Your task to perform on an android device: delete location history Image 0: 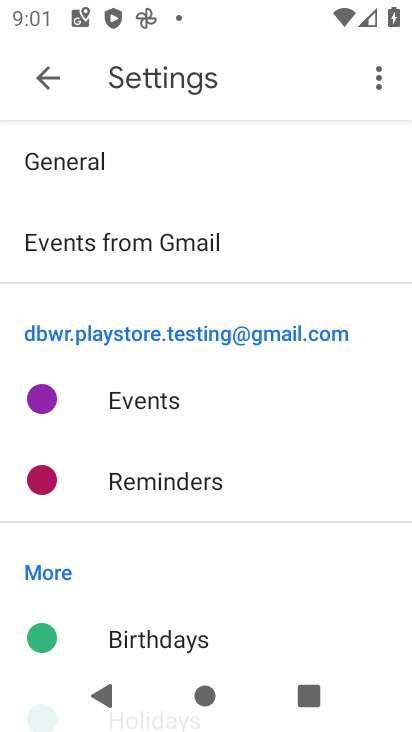
Step 0: drag from (184, 587) to (313, 61)
Your task to perform on an android device: delete location history Image 1: 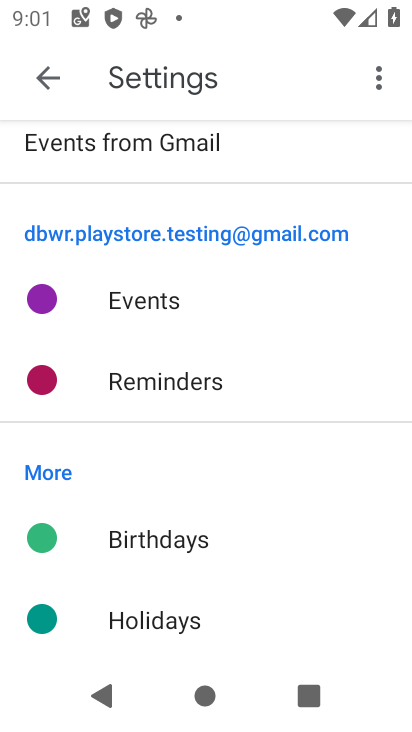
Step 1: press home button
Your task to perform on an android device: delete location history Image 2: 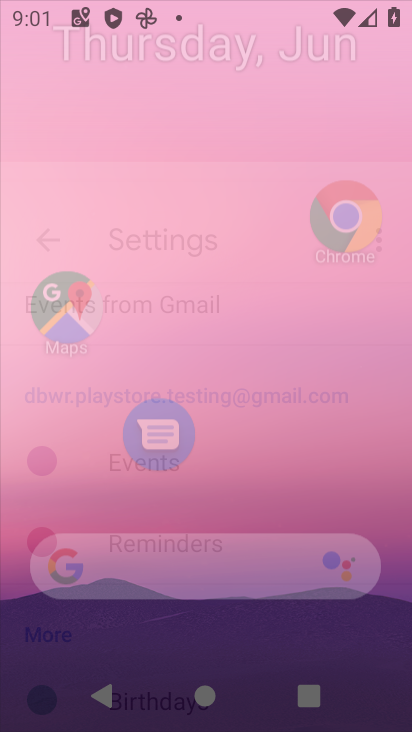
Step 2: drag from (124, 611) to (207, 249)
Your task to perform on an android device: delete location history Image 3: 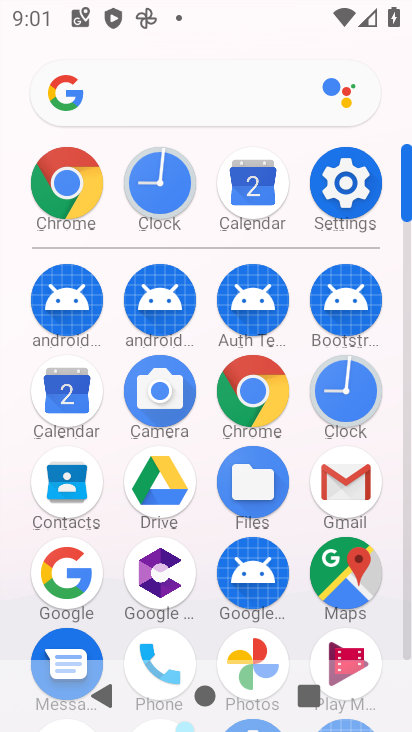
Step 3: click (336, 201)
Your task to perform on an android device: delete location history Image 4: 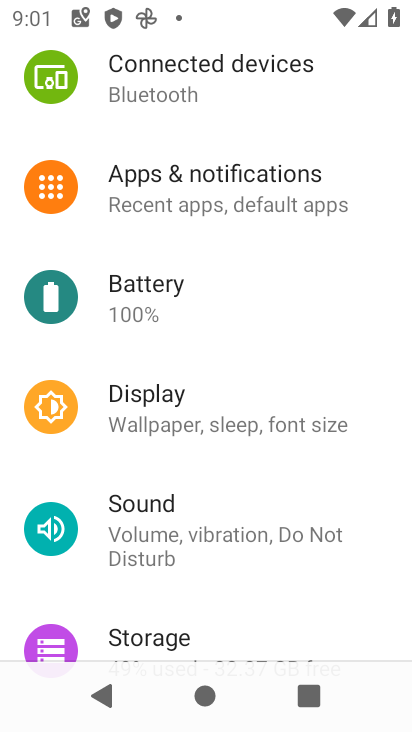
Step 4: drag from (218, 605) to (286, 290)
Your task to perform on an android device: delete location history Image 5: 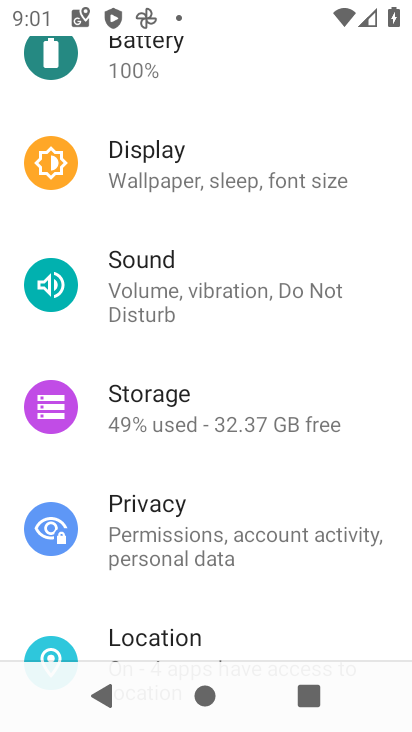
Step 5: click (151, 629)
Your task to perform on an android device: delete location history Image 6: 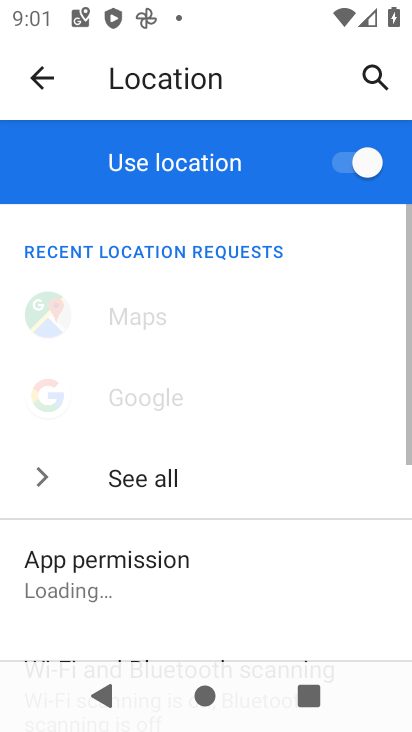
Step 6: drag from (199, 593) to (287, 111)
Your task to perform on an android device: delete location history Image 7: 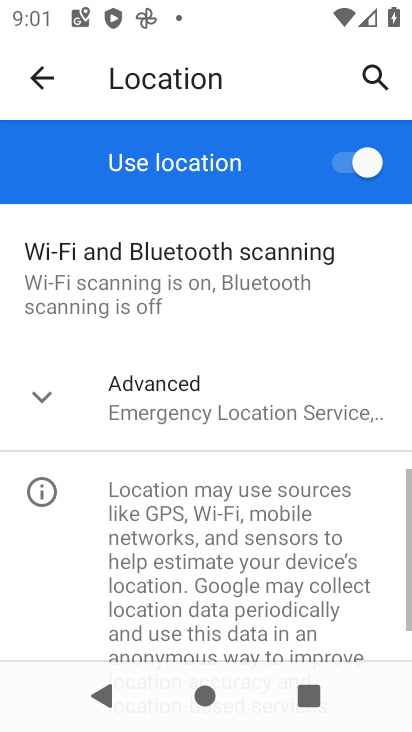
Step 7: click (135, 427)
Your task to perform on an android device: delete location history Image 8: 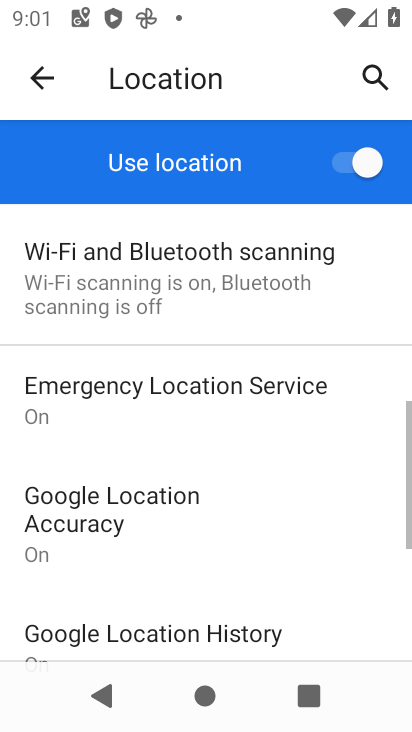
Step 8: drag from (208, 548) to (250, 283)
Your task to perform on an android device: delete location history Image 9: 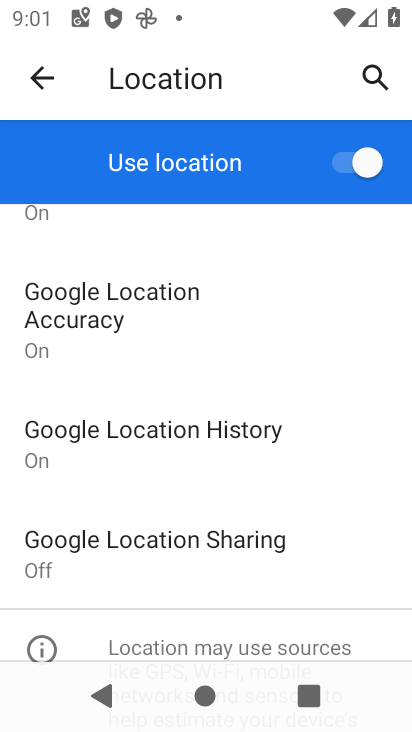
Step 9: click (230, 434)
Your task to perform on an android device: delete location history Image 10: 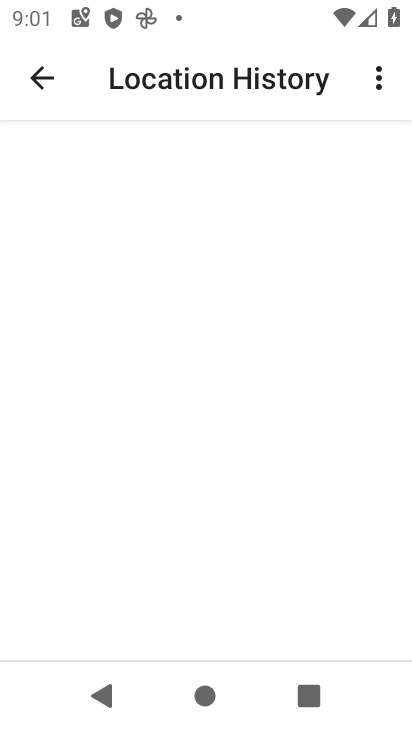
Step 10: drag from (195, 571) to (373, 230)
Your task to perform on an android device: delete location history Image 11: 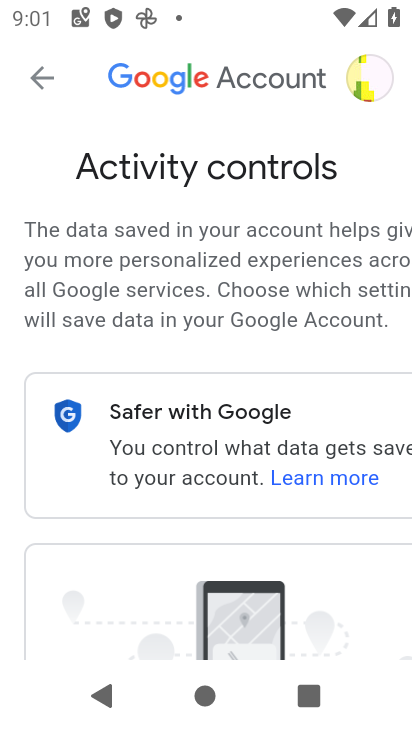
Step 11: drag from (237, 573) to (264, 150)
Your task to perform on an android device: delete location history Image 12: 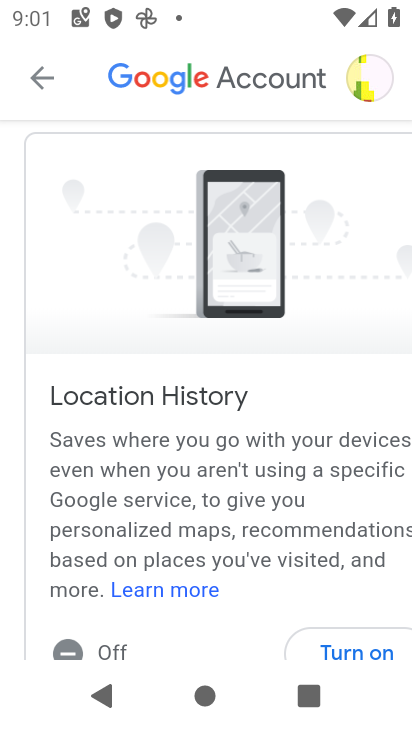
Step 12: drag from (189, 609) to (263, 261)
Your task to perform on an android device: delete location history Image 13: 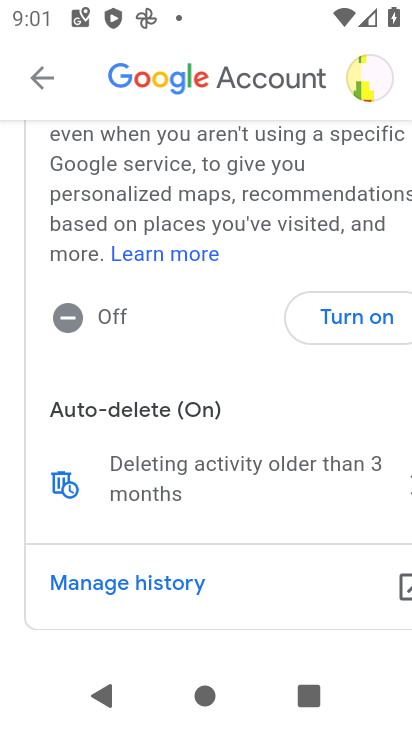
Step 13: click (59, 480)
Your task to perform on an android device: delete location history Image 14: 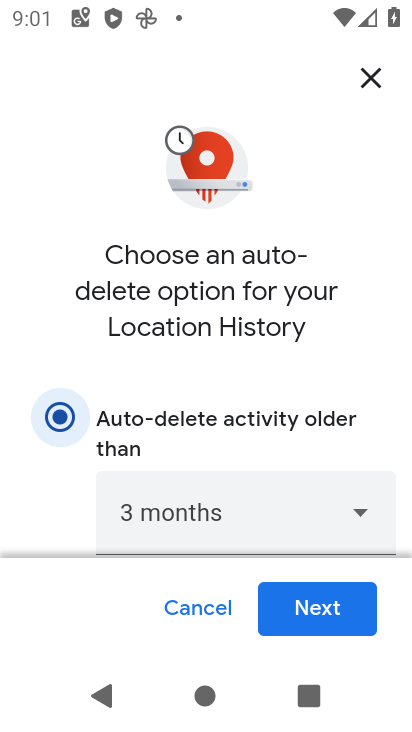
Step 14: drag from (161, 471) to (285, 65)
Your task to perform on an android device: delete location history Image 15: 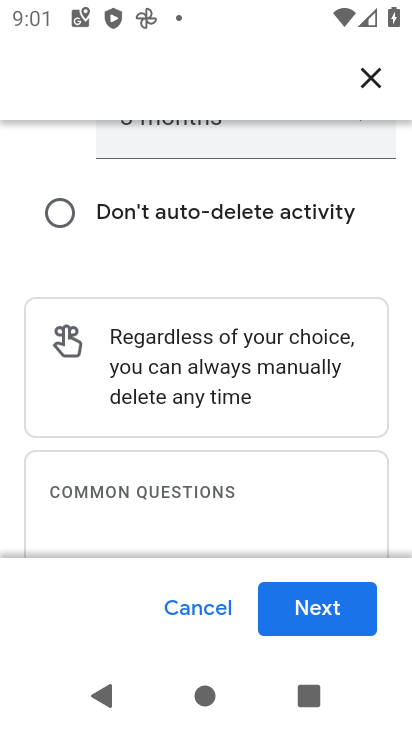
Step 15: drag from (251, 393) to (357, 109)
Your task to perform on an android device: delete location history Image 16: 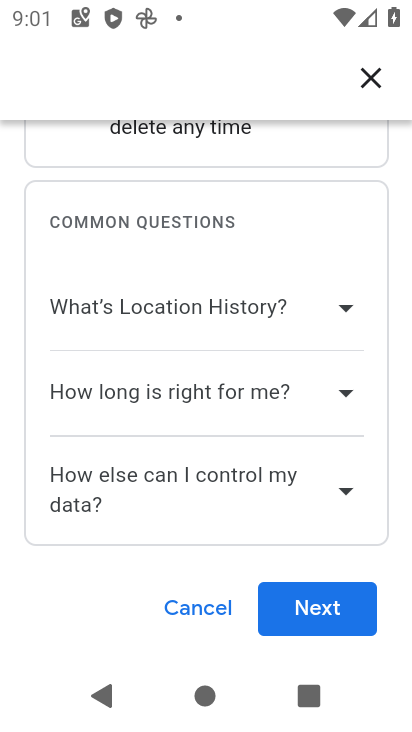
Step 16: drag from (161, 477) to (268, 130)
Your task to perform on an android device: delete location history Image 17: 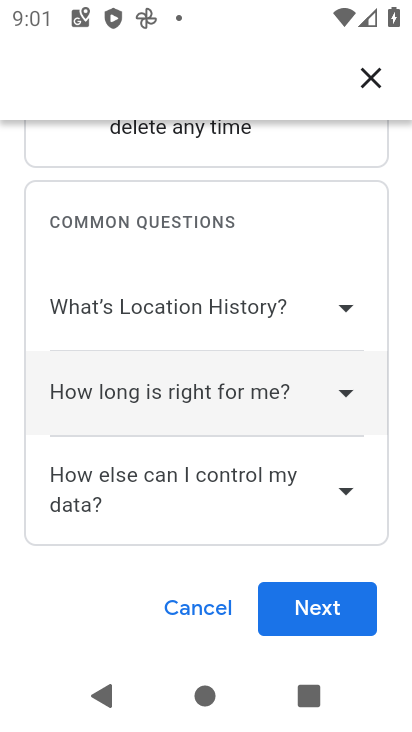
Step 17: drag from (222, 557) to (328, 236)
Your task to perform on an android device: delete location history Image 18: 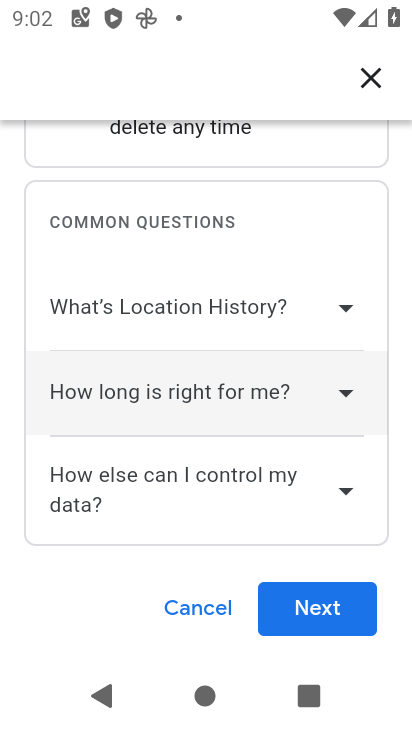
Step 18: click (294, 626)
Your task to perform on an android device: delete location history Image 19: 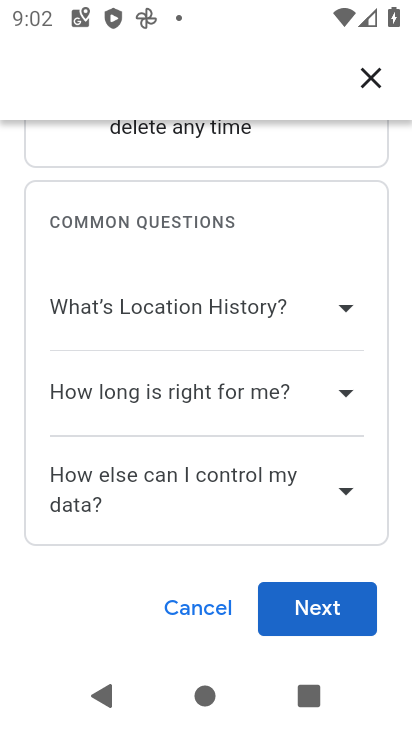
Step 19: click (324, 602)
Your task to perform on an android device: delete location history Image 20: 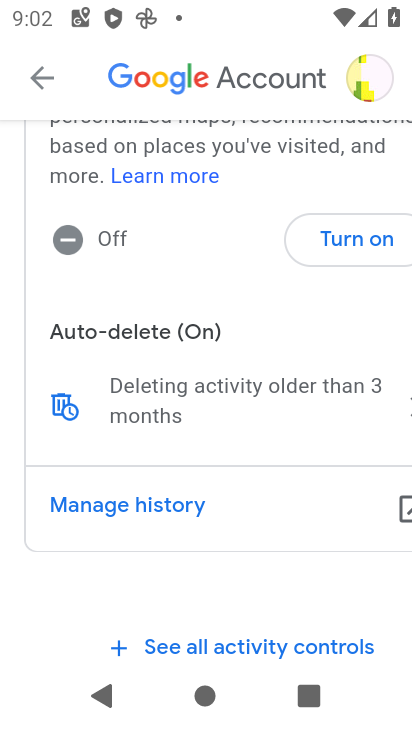
Step 20: task complete